Your task to perform on an android device: Open the calendar and show me this week's events Image 0: 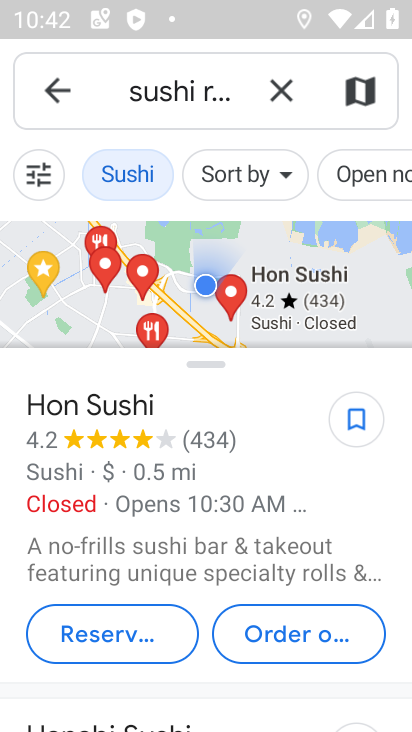
Step 0: press home button
Your task to perform on an android device: Open the calendar and show me this week's events Image 1: 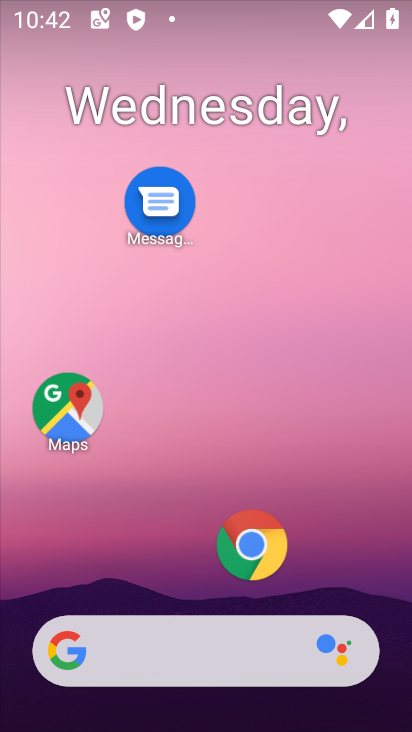
Step 1: drag from (204, 535) to (226, 191)
Your task to perform on an android device: Open the calendar and show me this week's events Image 2: 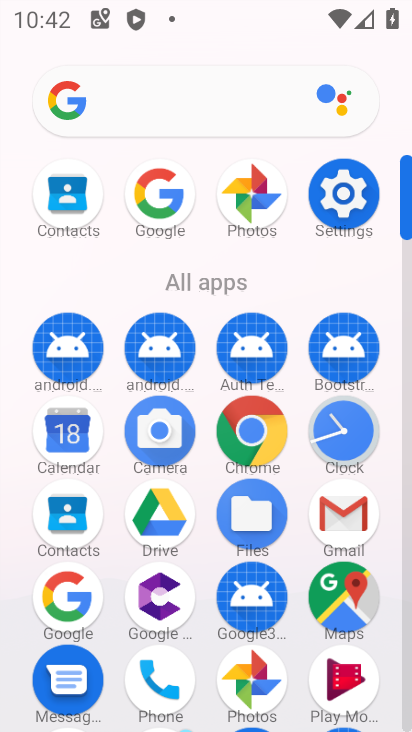
Step 2: click (82, 435)
Your task to perform on an android device: Open the calendar and show me this week's events Image 3: 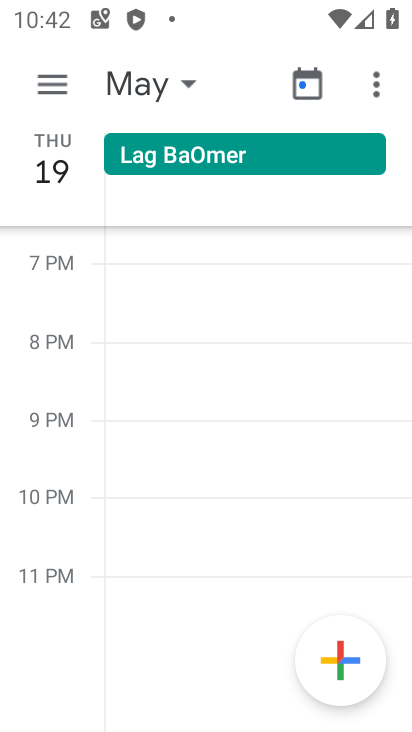
Step 3: click (169, 87)
Your task to perform on an android device: Open the calendar and show me this week's events Image 4: 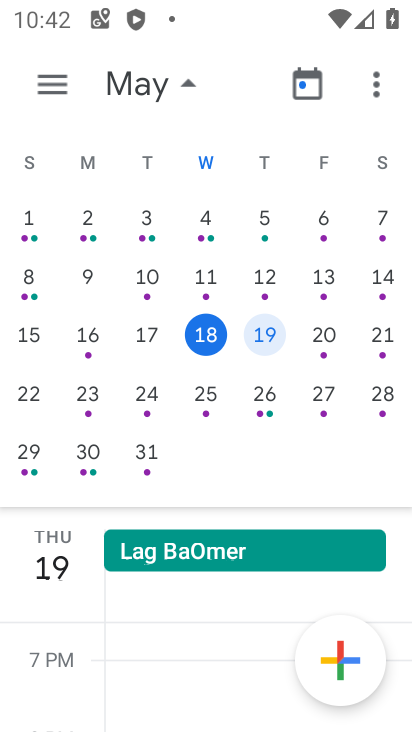
Step 4: click (373, 334)
Your task to perform on an android device: Open the calendar and show me this week's events Image 5: 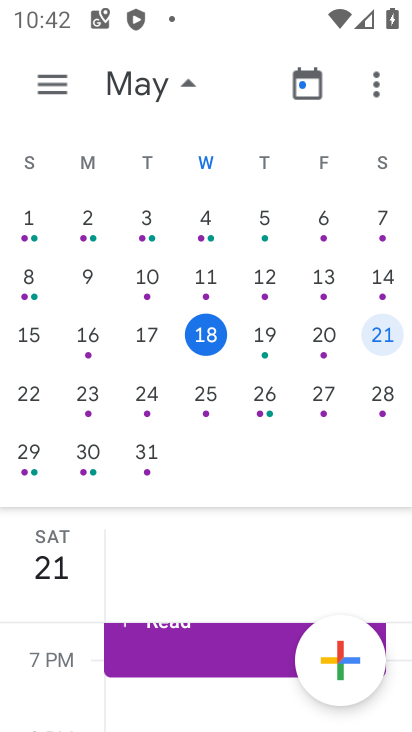
Step 5: click (336, 340)
Your task to perform on an android device: Open the calendar and show me this week's events Image 6: 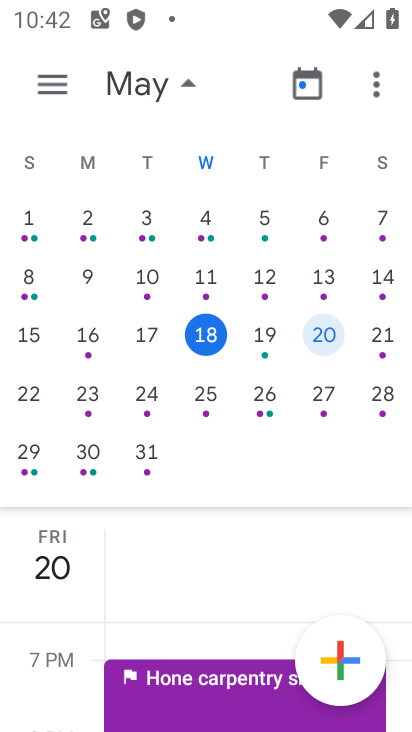
Step 6: task complete